Your task to perform on an android device: What is the average speed of a car? Image 0: 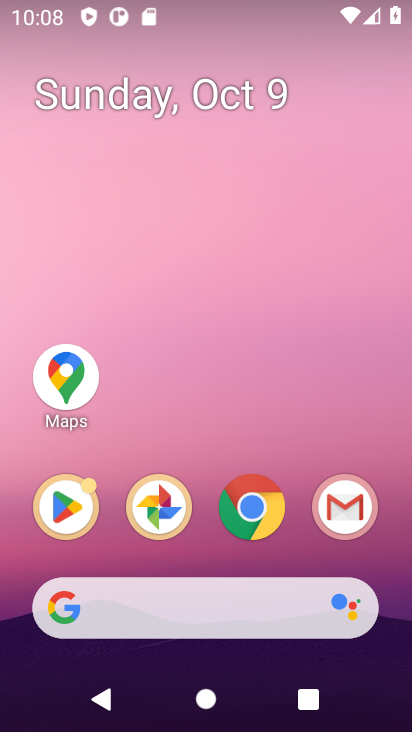
Step 0: drag from (295, 559) to (273, 27)
Your task to perform on an android device: What is the average speed of a car? Image 1: 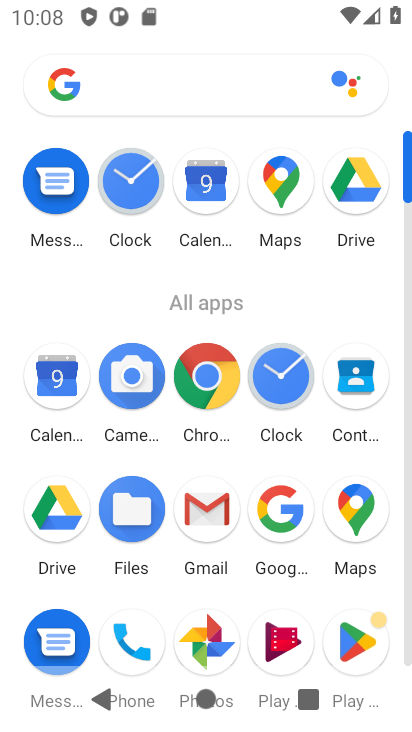
Step 1: click (212, 379)
Your task to perform on an android device: What is the average speed of a car? Image 2: 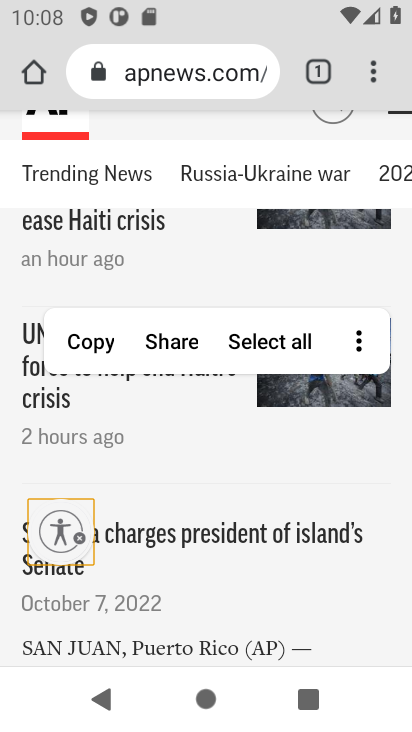
Step 2: click (214, 74)
Your task to perform on an android device: What is the average speed of a car? Image 3: 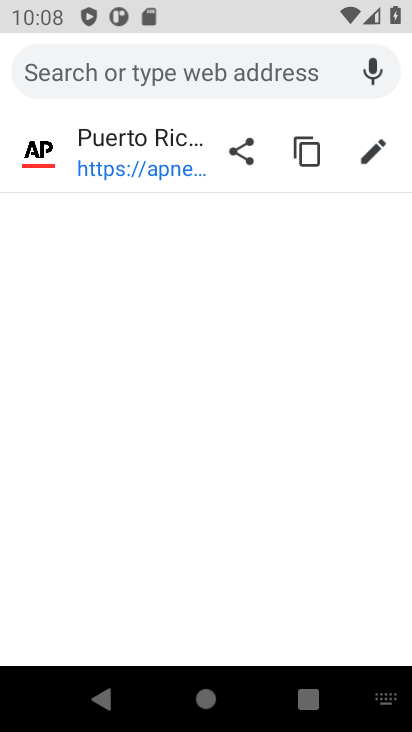
Step 3: type "What is the avarage speed of a car?"
Your task to perform on an android device: What is the average speed of a car? Image 4: 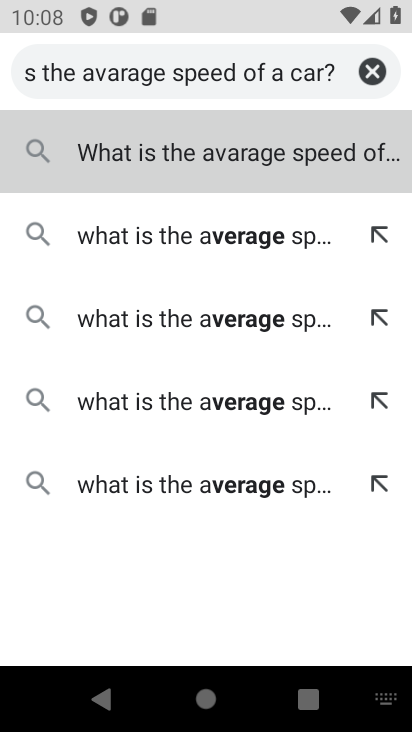
Step 4: press enter
Your task to perform on an android device: What is the average speed of a car? Image 5: 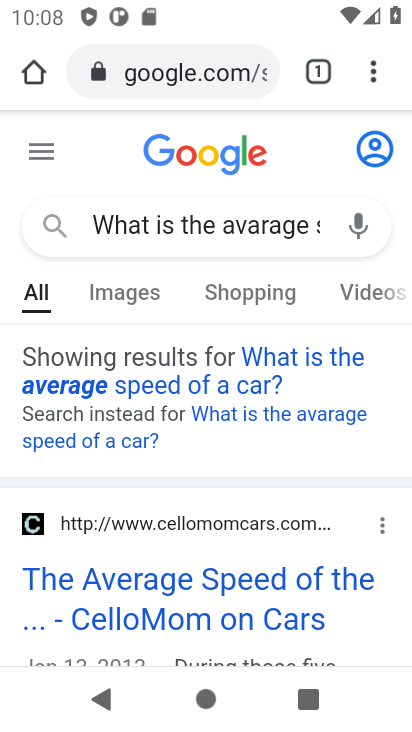
Step 5: click (292, 356)
Your task to perform on an android device: What is the average speed of a car? Image 6: 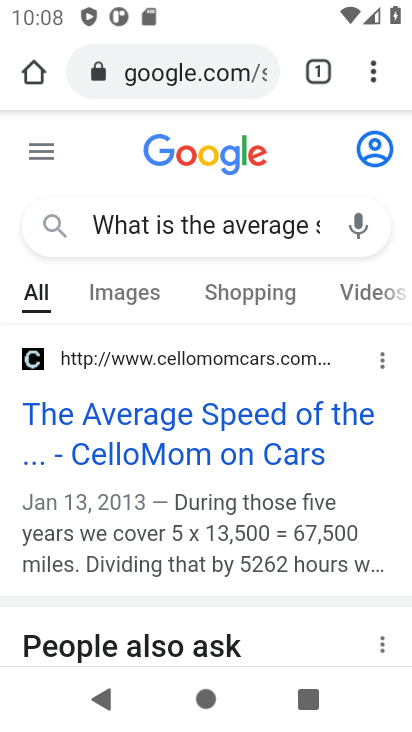
Step 6: drag from (313, 564) to (316, 464)
Your task to perform on an android device: What is the average speed of a car? Image 7: 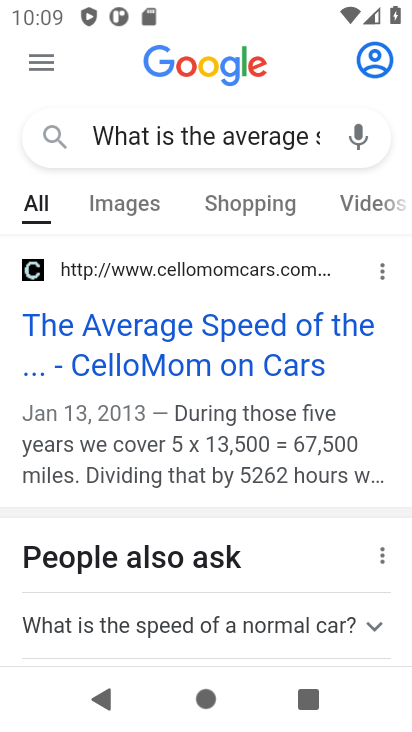
Step 7: click (287, 349)
Your task to perform on an android device: What is the average speed of a car? Image 8: 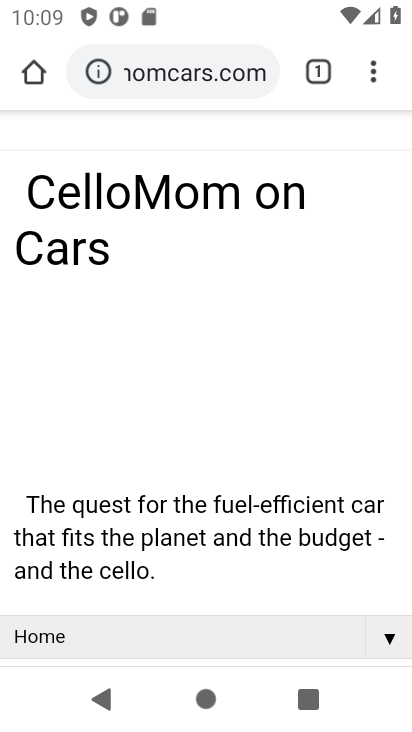
Step 8: task complete